Your task to perform on an android device: Open the Play Movies app and select the watchlist tab. Image 0: 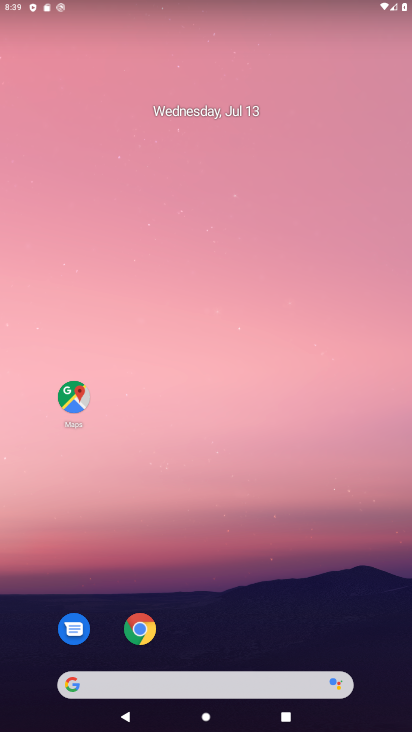
Step 0: drag from (269, 556) to (306, 181)
Your task to perform on an android device: Open the Play Movies app and select the watchlist tab. Image 1: 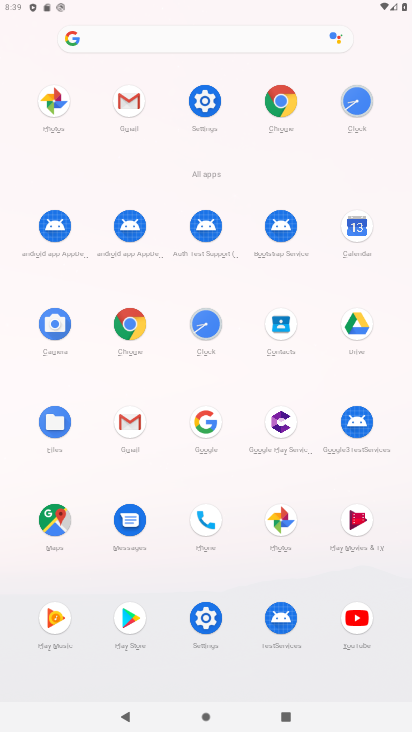
Step 1: click (354, 518)
Your task to perform on an android device: Open the Play Movies app and select the watchlist tab. Image 2: 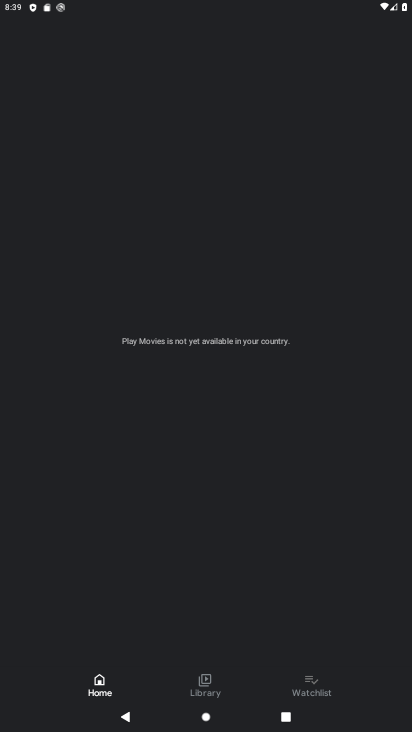
Step 2: click (303, 686)
Your task to perform on an android device: Open the Play Movies app and select the watchlist tab. Image 3: 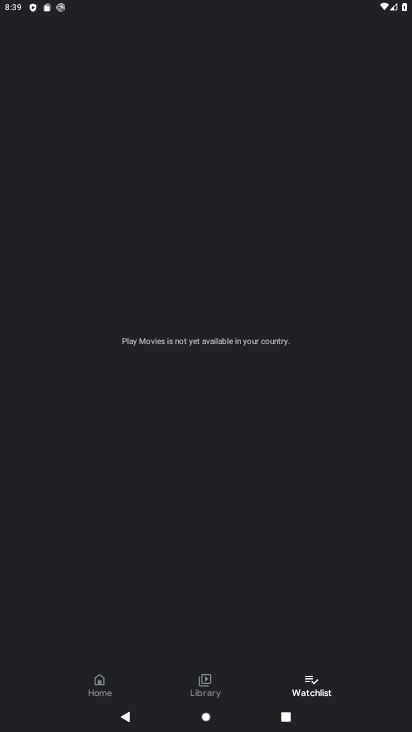
Step 3: task complete